Your task to perform on an android device: toggle priority inbox in the gmail app Image 0: 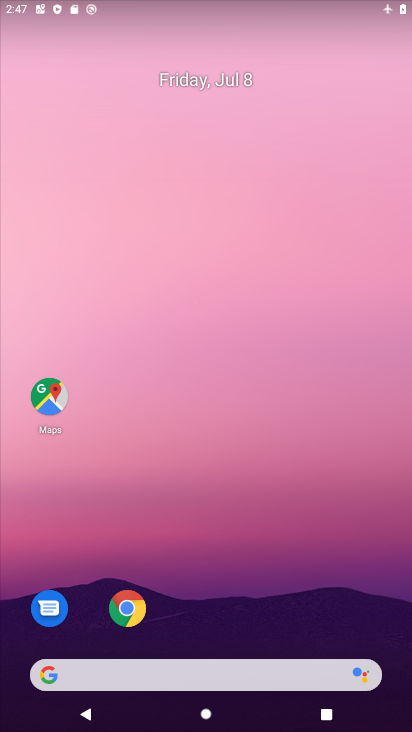
Step 0: drag from (246, 678) to (280, 3)
Your task to perform on an android device: toggle priority inbox in the gmail app Image 1: 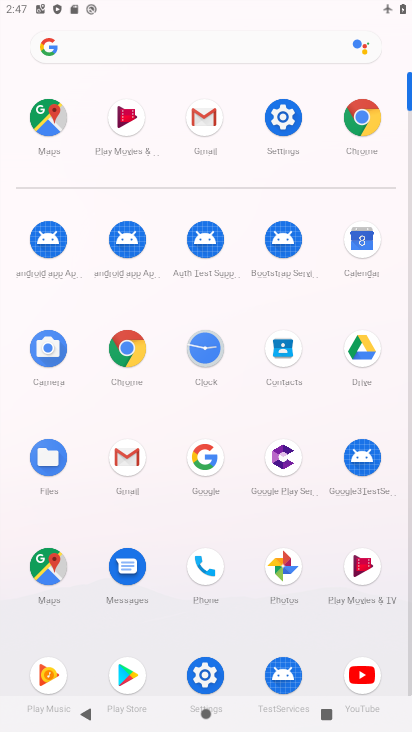
Step 1: click (124, 457)
Your task to perform on an android device: toggle priority inbox in the gmail app Image 2: 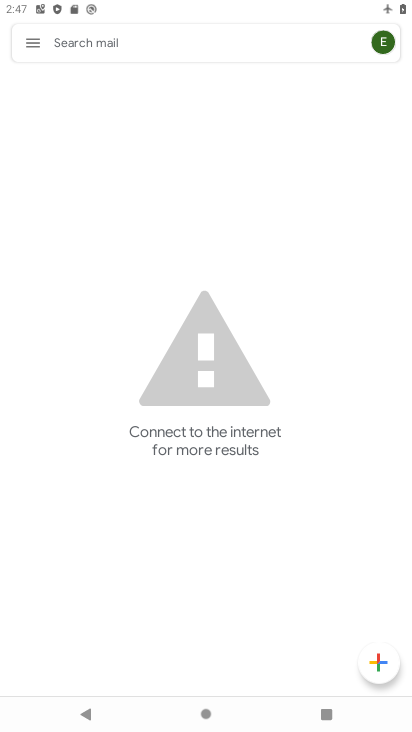
Step 2: click (20, 46)
Your task to perform on an android device: toggle priority inbox in the gmail app Image 3: 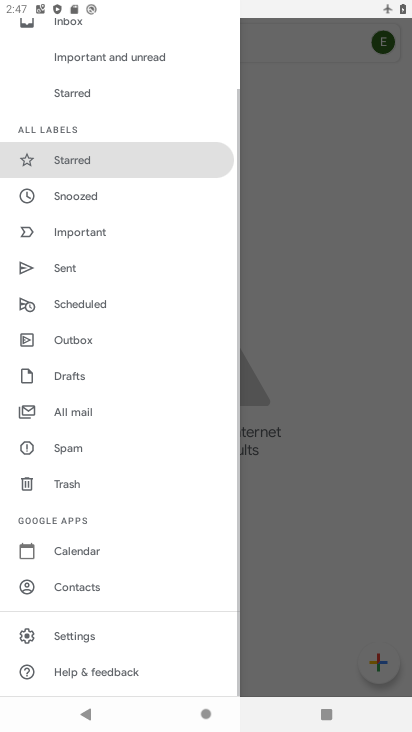
Step 3: click (99, 633)
Your task to perform on an android device: toggle priority inbox in the gmail app Image 4: 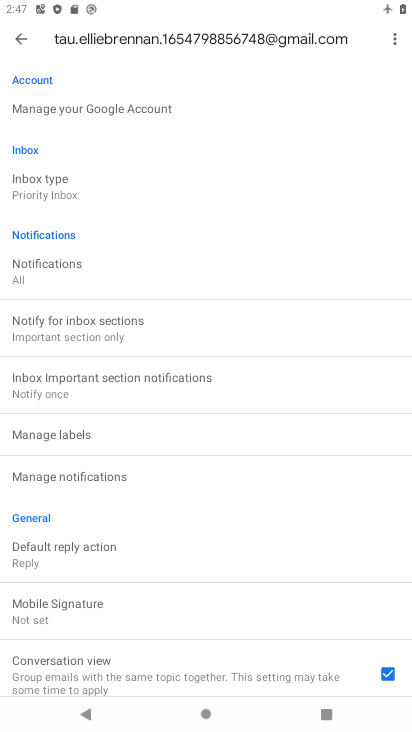
Step 4: click (76, 188)
Your task to perform on an android device: toggle priority inbox in the gmail app Image 5: 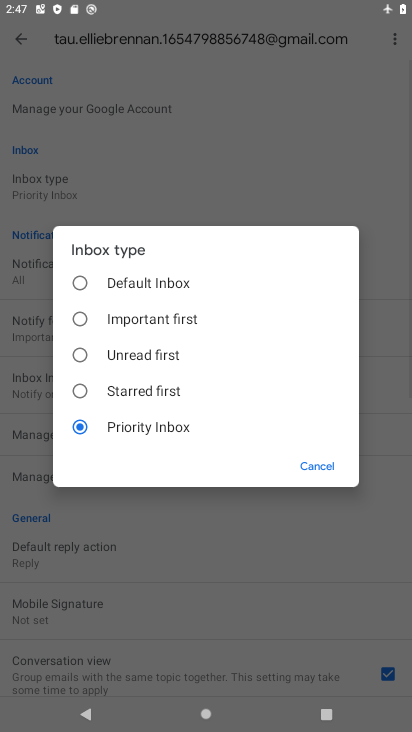
Step 5: click (76, 286)
Your task to perform on an android device: toggle priority inbox in the gmail app Image 6: 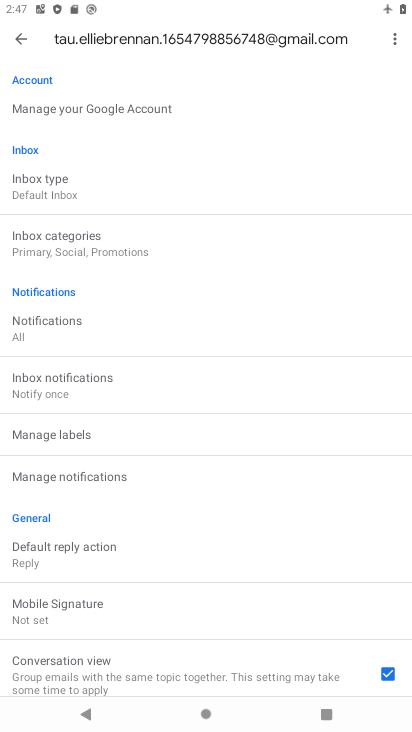
Step 6: task complete